Your task to perform on an android device: Show me the alarms in the clock app Image 0: 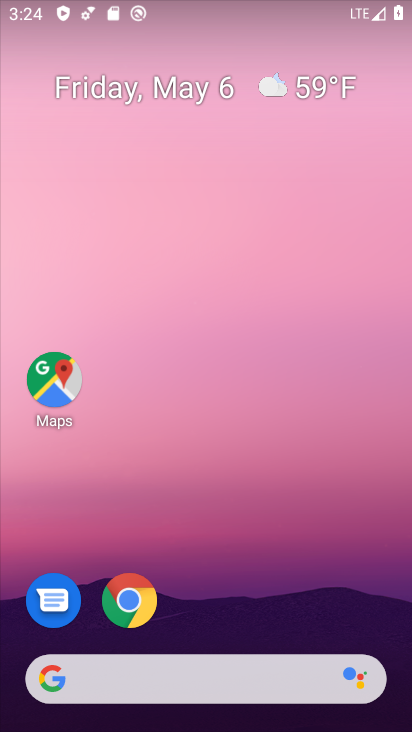
Step 0: click (264, 20)
Your task to perform on an android device: Show me the alarms in the clock app Image 1: 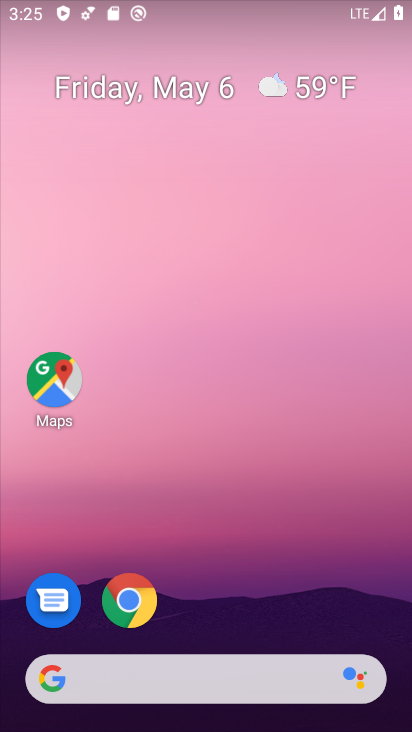
Step 1: drag from (246, 500) to (316, 7)
Your task to perform on an android device: Show me the alarms in the clock app Image 2: 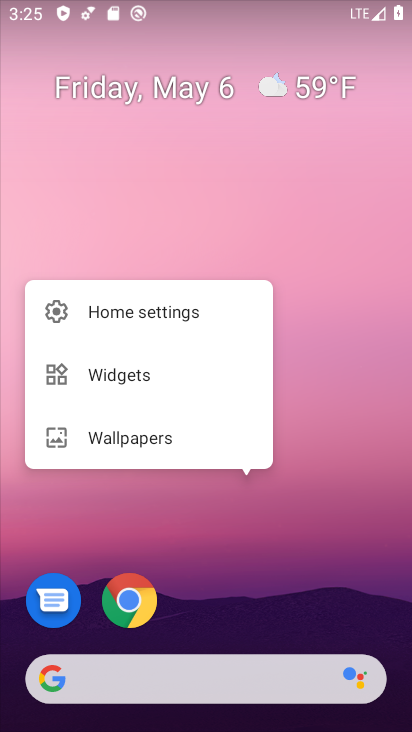
Step 2: drag from (224, 493) to (243, 39)
Your task to perform on an android device: Show me the alarms in the clock app Image 3: 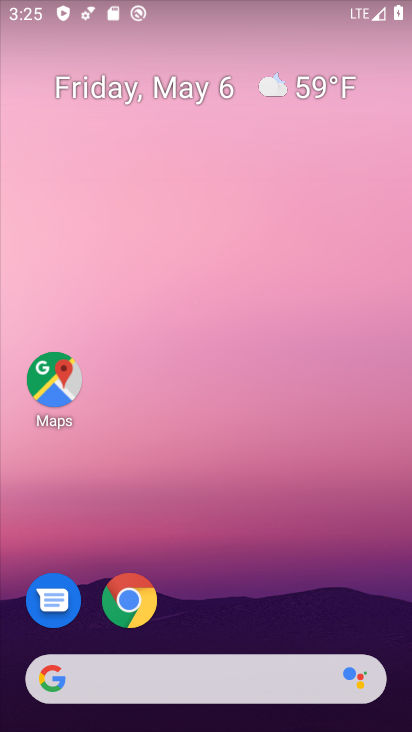
Step 3: click (255, 0)
Your task to perform on an android device: Show me the alarms in the clock app Image 4: 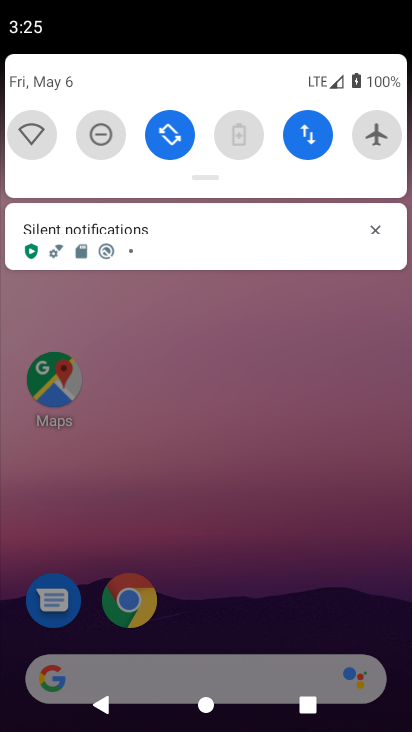
Step 4: drag from (203, 296) to (295, 7)
Your task to perform on an android device: Show me the alarms in the clock app Image 5: 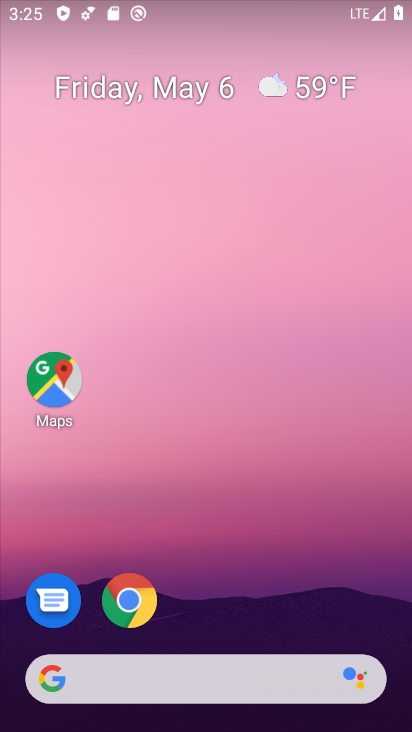
Step 5: drag from (237, 98) to (255, 40)
Your task to perform on an android device: Show me the alarms in the clock app Image 6: 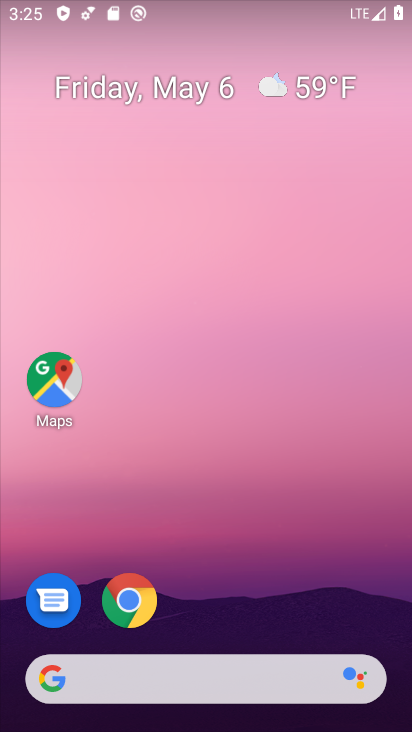
Step 6: drag from (222, 231) to (284, 1)
Your task to perform on an android device: Show me the alarms in the clock app Image 7: 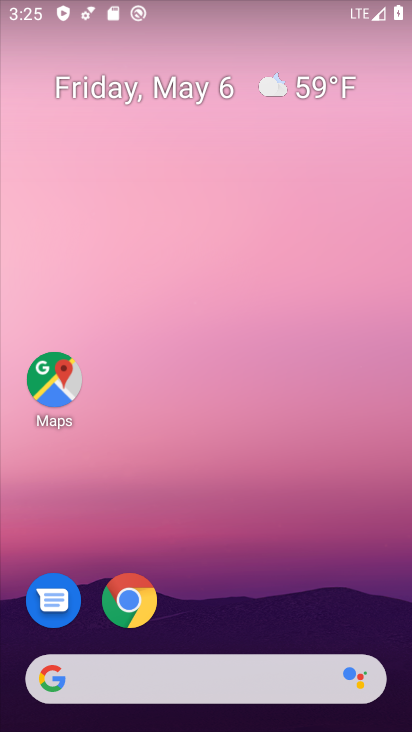
Step 7: click (277, 147)
Your task to perform on an android device: Show me the alarms in the clock app Image 8: 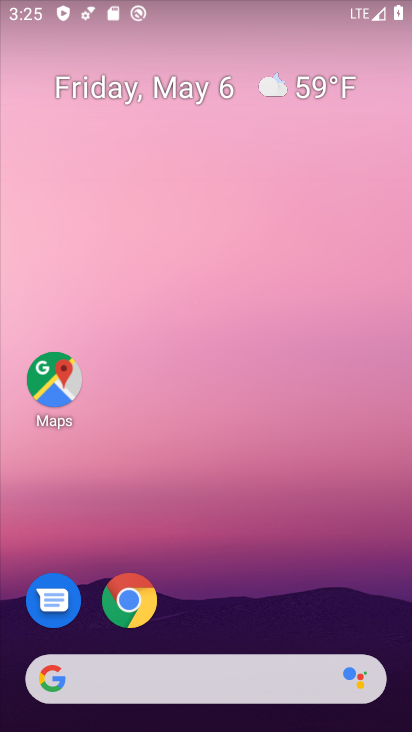
Step 8: drag from (250, 577) to (248, 88)
Your task to perform on an android device: Show me the alarms in the clock app Image 9: 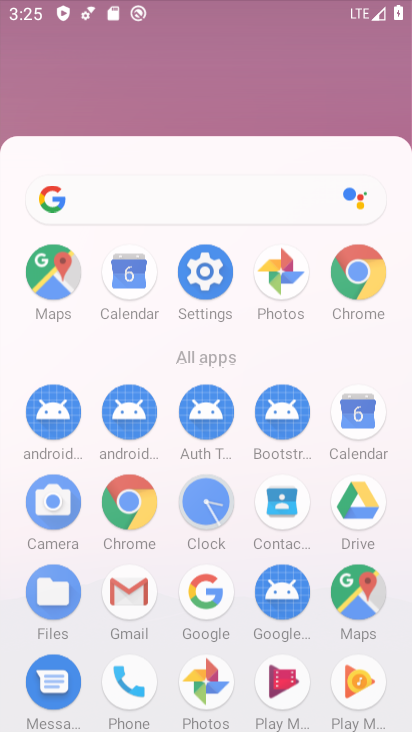
Step 9: drag from (247, 309) to (259, 136)
Your task to perform on an android device: Show me the alarms in the clock app Image 10: 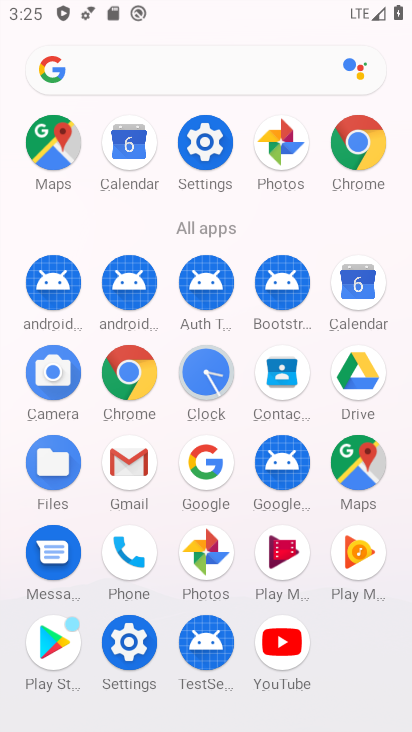
Step 10: click (221, 370)
Your task to perform on an android device: Show me the alarms in the clock app Image 11: 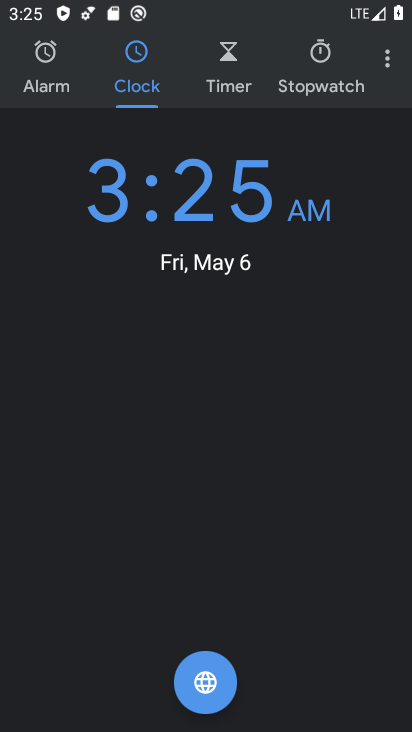
Step 11: click (41, 67)
Your task to perform on an android device: Show me the alarms in the clock app Image 12: 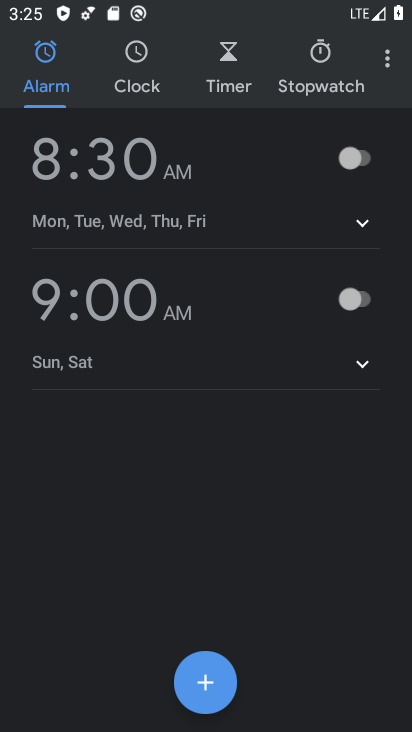
Step 12: task complete